Your task to perform on an android device: Open Chrome and go to settings Image 0: 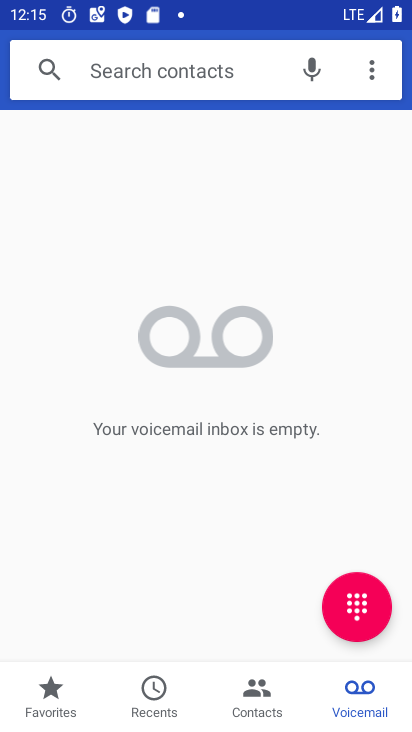
Step 0: press home button
Your task to perform on an android device: Open Chrome and go to settings Image 1: 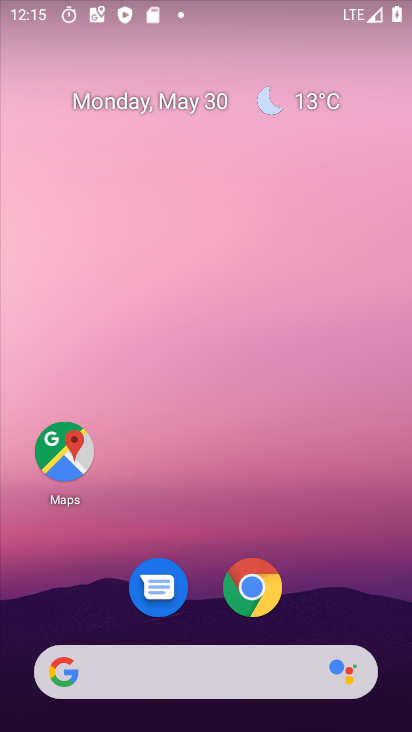
Step 1: click (249, 582)
Your task to perform on an android device: Open Chrome and go to settings Image 2: 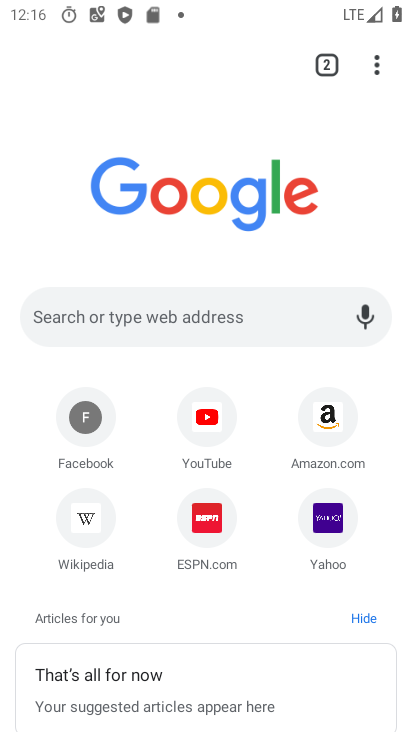
Step 2: click (367, 73)
Your task to perform on an android device: Open Chrome and go to settings Image 3: 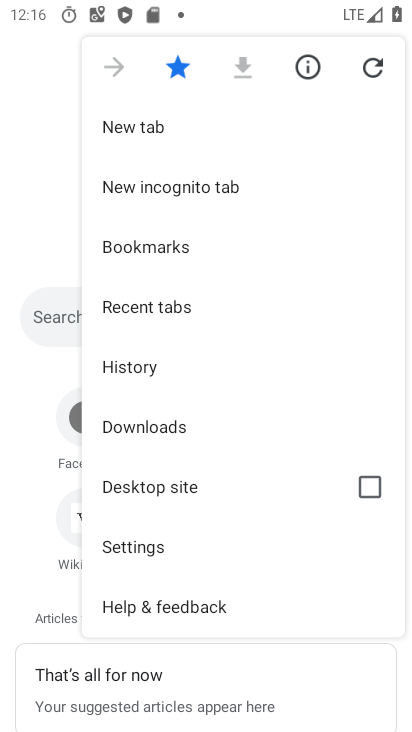
Step 3: drag from (181, 541) to (204, 253)
Your task to perform on an android device: Open Chrome and go to settings Image 4: 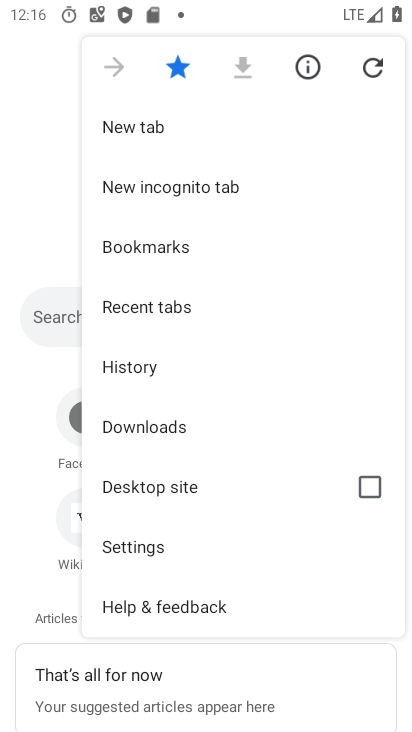
Step 4: click (131, 545)
Your task to perform on an android device: Open Chrome and go to settings Image 5: 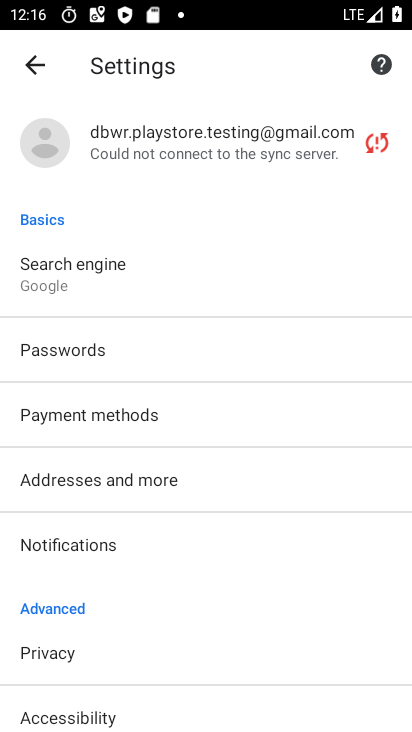
Step 5: task complete